Your task to perform on an android device: Go to sound settings Image 0: 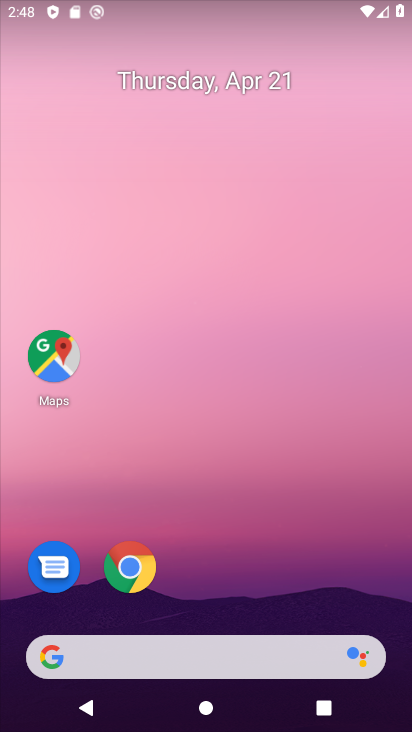
Step 0: drag from (307, 621) to (314, 23)
Your task to perform on an android device: Go to sound settings Image 1: 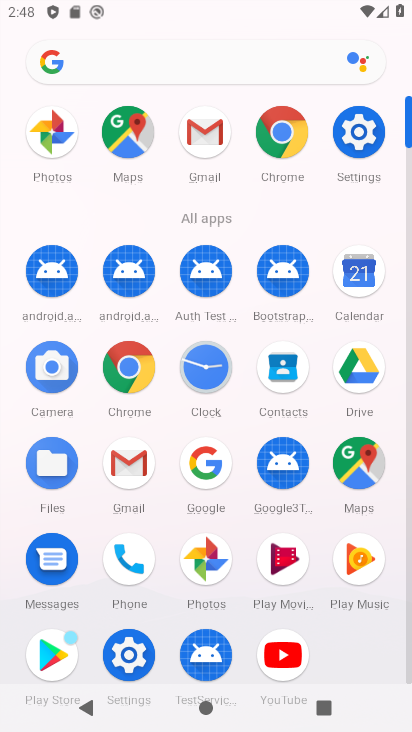
Step 1: click (356, 144)
Your task to perform on an android device: Go to sound settings Image 2: 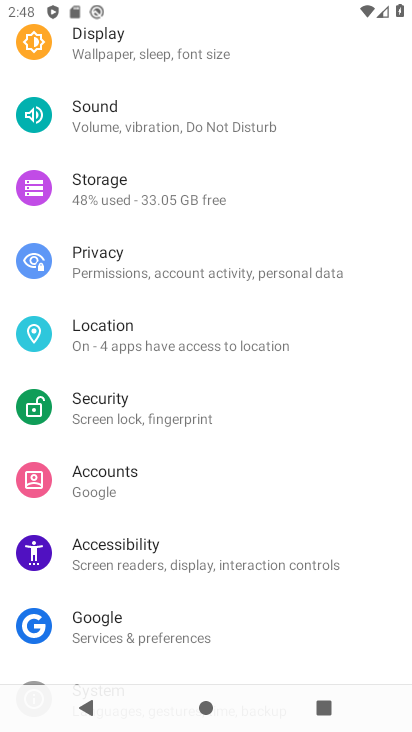
Step 2: click (275, 132)
Your task to perform on an android device: Go to sound settings Image 3: 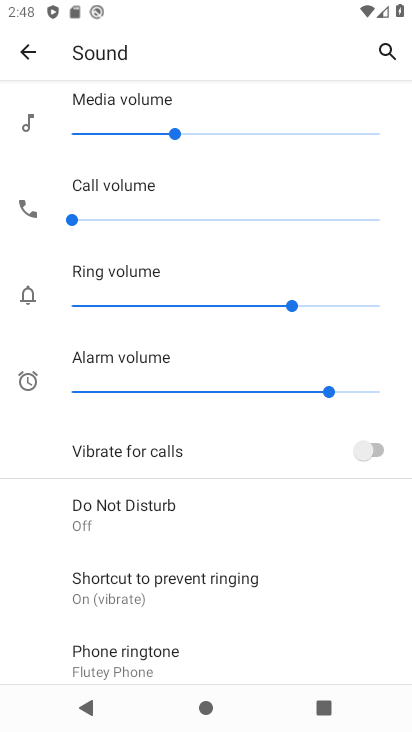
Step 3: task complete